Your task to perform on an android device: Open Yahoo.com Image 0: 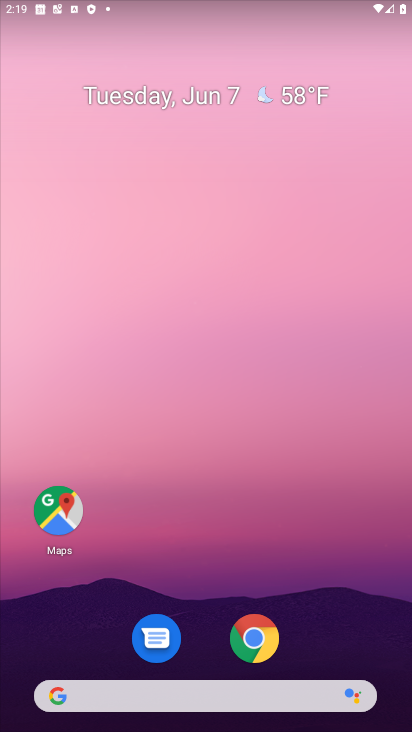
Step 0: drag from (227, 623) to (276, 353)
Your task to perform on an android device: Open Yahoo.com Image 1: 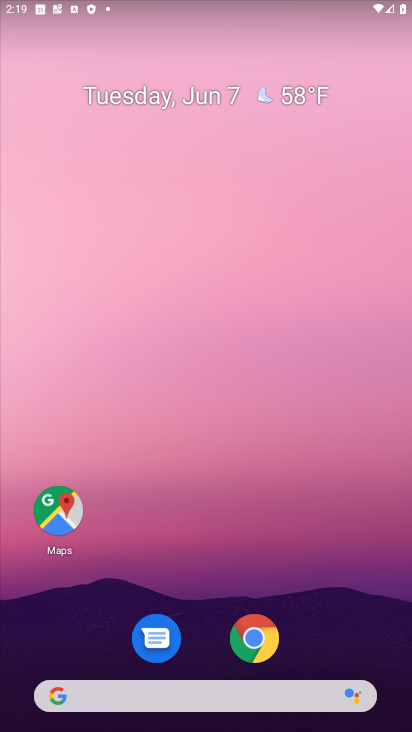
Step 1: drag from (181, 660) to (255, 297)
Your task to perform on an android device: Open Yahoo.com Image 2: 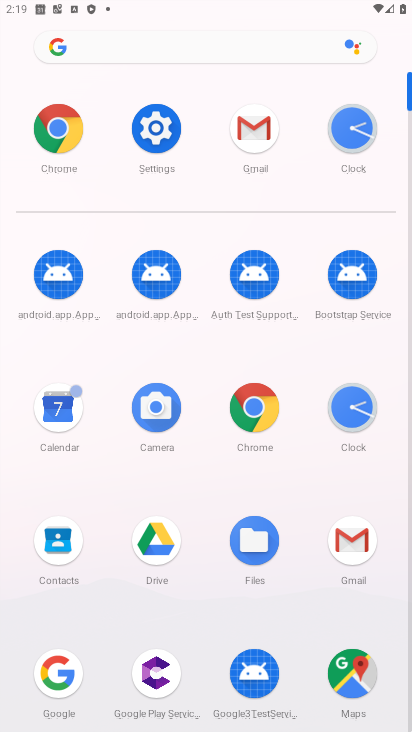
Step 2: click (67, 131)
Your task to perform on an android device: Open Yahoo.com Image 3: 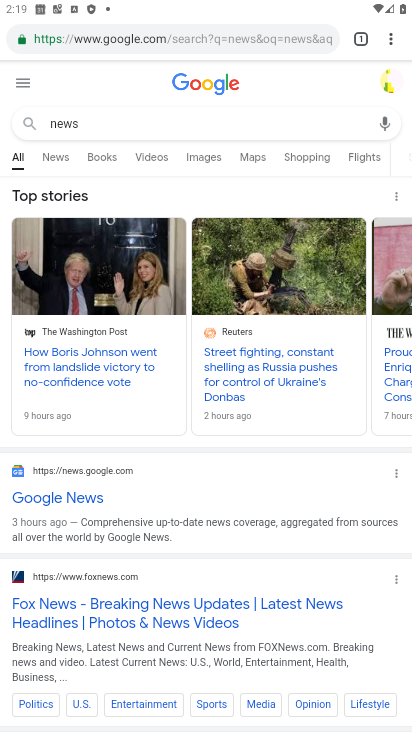
Step 3: type "Yahoo.cm"
Your task to perform on an android device: Open Yahoo.com Image 4: 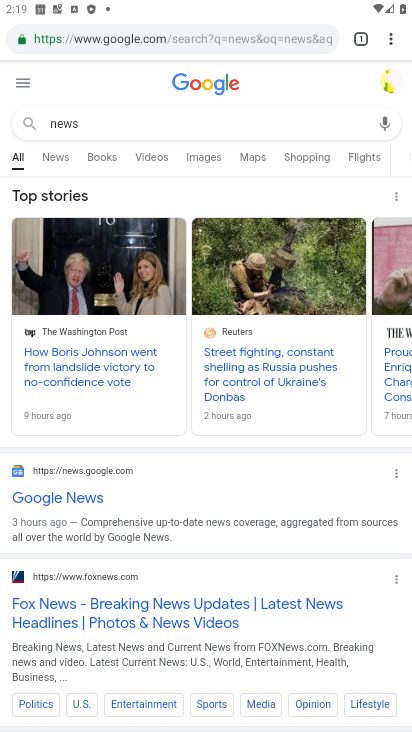
Step 4: click (128, 44)
Your task to perform on an android device: Open Yahoo.com Image 5: 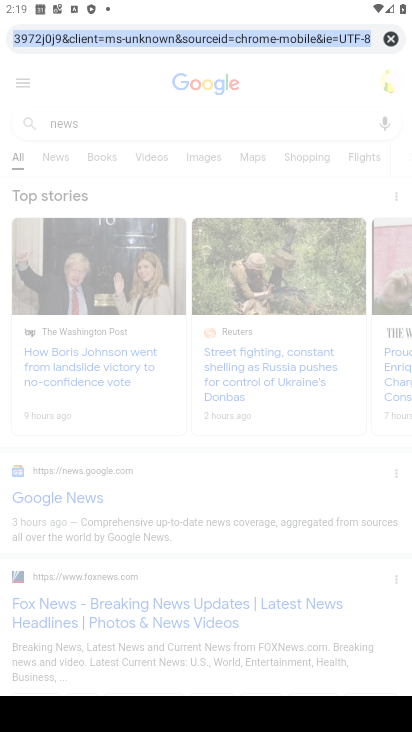
Step 5: type "Yahoo.com"
Your task to perform on an android device: Open Yahoo.com Image 6: 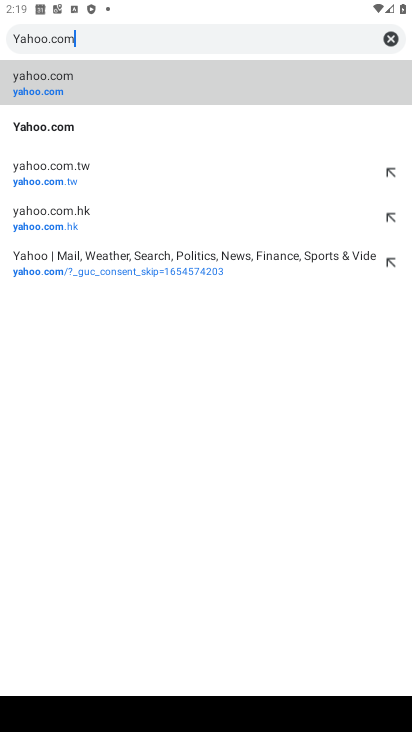
Step 6: click (86, 83)
Your task to perform on an android device: Open Yahoo.com Image 7: 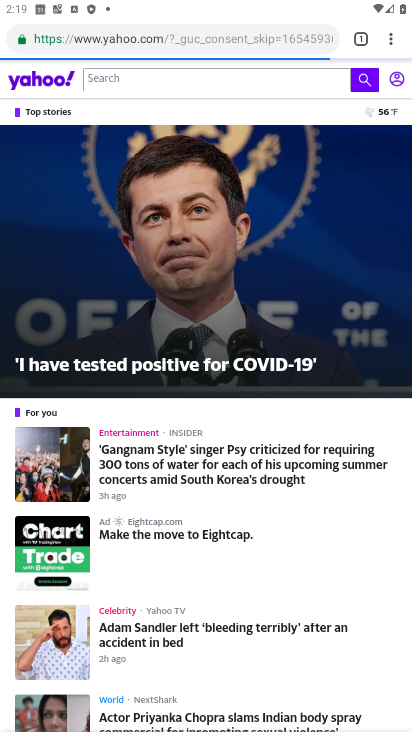
Step 7: task complete